Your task to perform on an android device: Open accessibility settings Image 0: 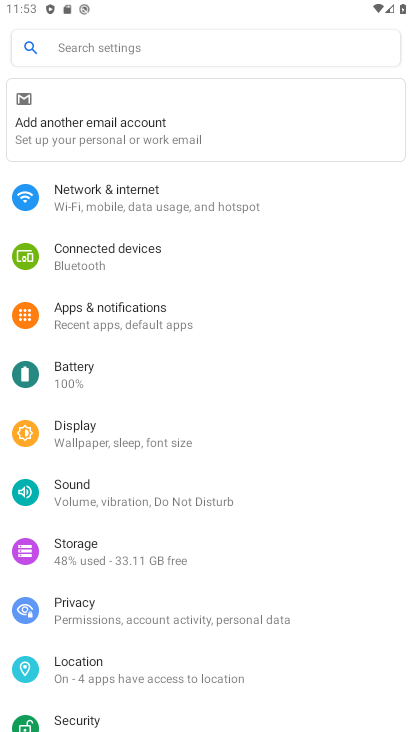
Step 0: press home button
Your task to perform on an android device: Open accessibility settings Image 1: 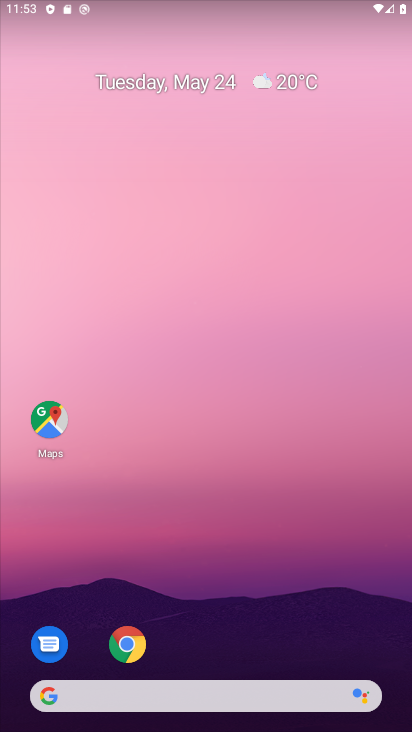
Step 1: drag from (274, 631) to (219, 155)
Your task to perform on an android device: Open accessibility settings Image 2: 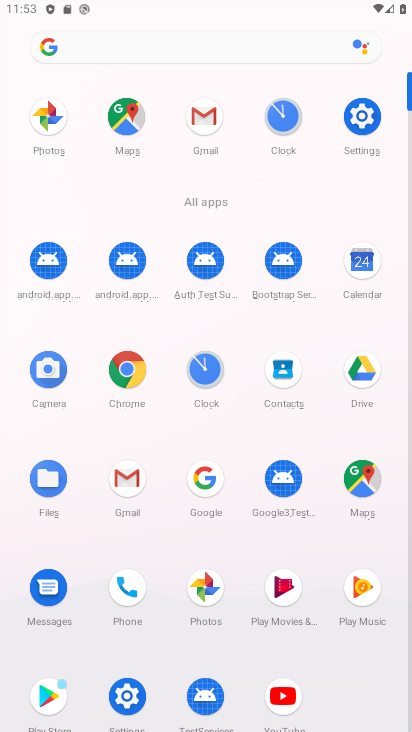
Step 2: click (111, 691)
Your task to perform on an android device: Open accessibility settings Image 3: 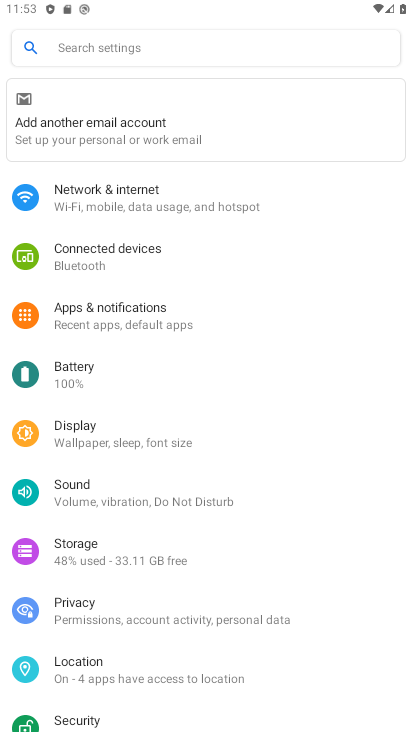
Step 3: drag from (151, 692) to (154, 98)
Your task to perform on an android device: Open accessibility settings Image 4: 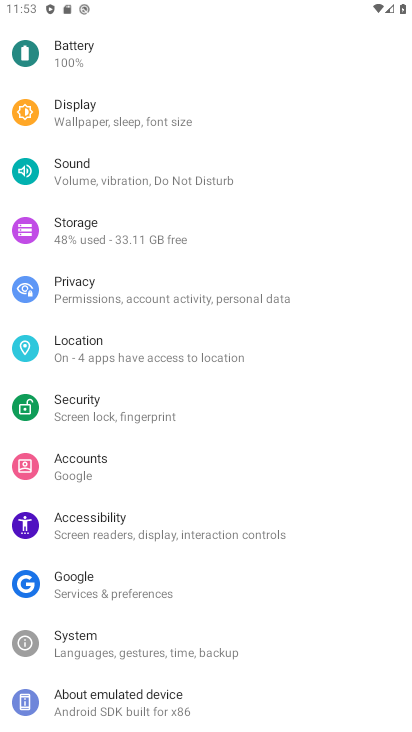
Step 4: click (133, 532)
Your task to perform on an android device: Open accessibility settings Image 5: 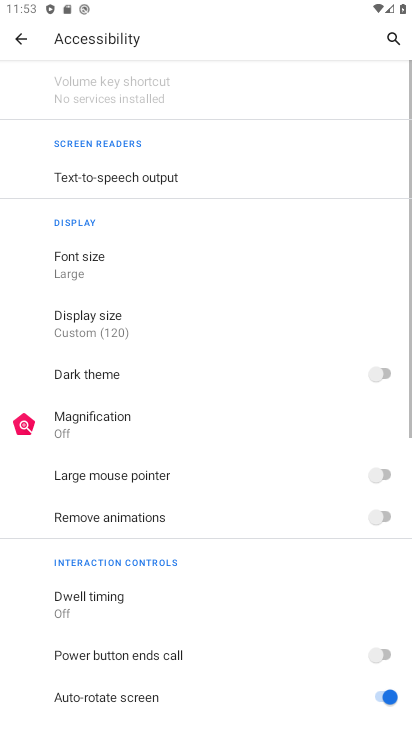
Step 5: task complete